Your task to perform on an android device: all mails in gmail Image 0: 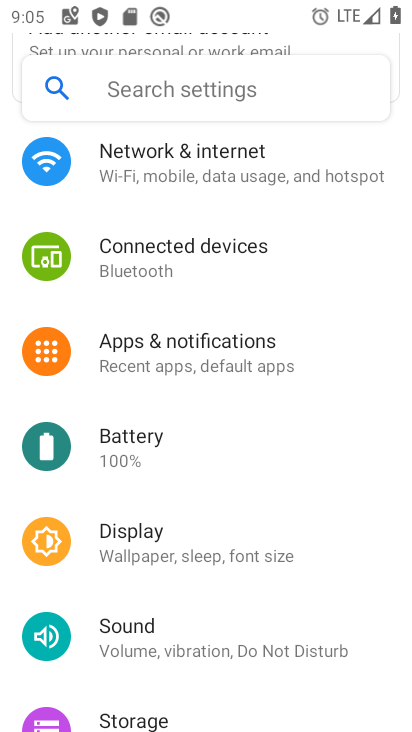
Step 0: press home button
Your task to perform on an android device: all mails in gmail Image 1: 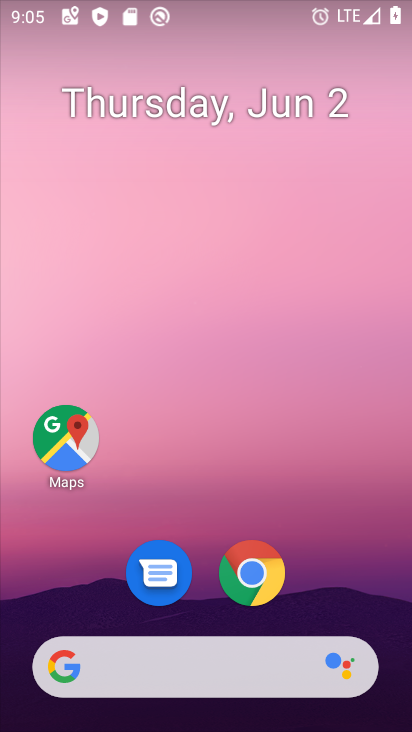
Step 1: drag from (347, 626) to (283, 19)
Your task to perform on an android device: all mails in gmail Image 2: 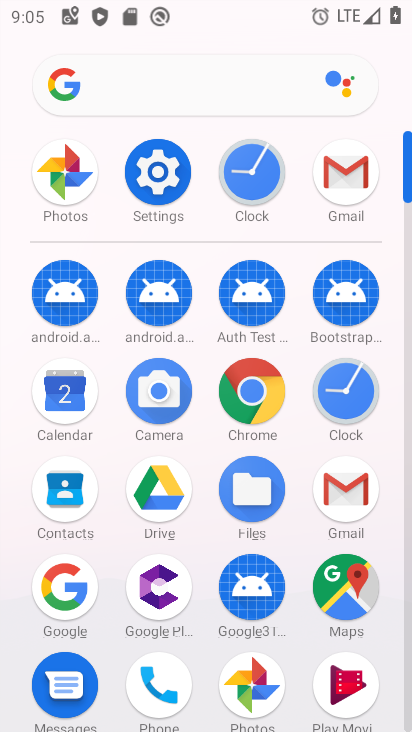
Step 2: click (350, 484)
Your task to perform on an android device: all mails in gmail Image 3: 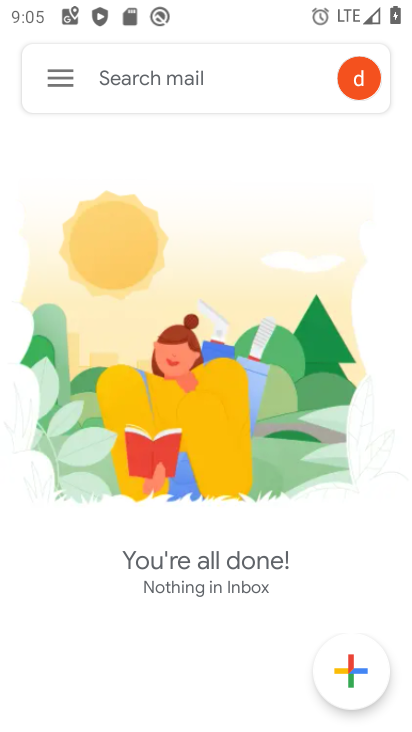
Step 3: click (76, 71)
Your task to perform on an android device: all mails in gmail Image 4: 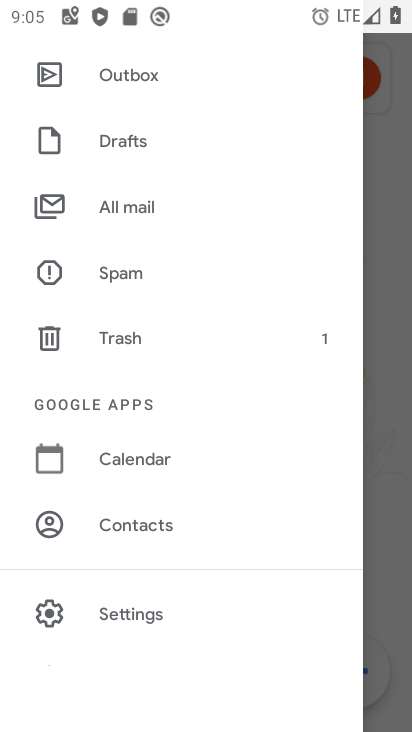
Step 4: click (123, 210)
Your task to perform on an android device: all mails in gmail Image 5: 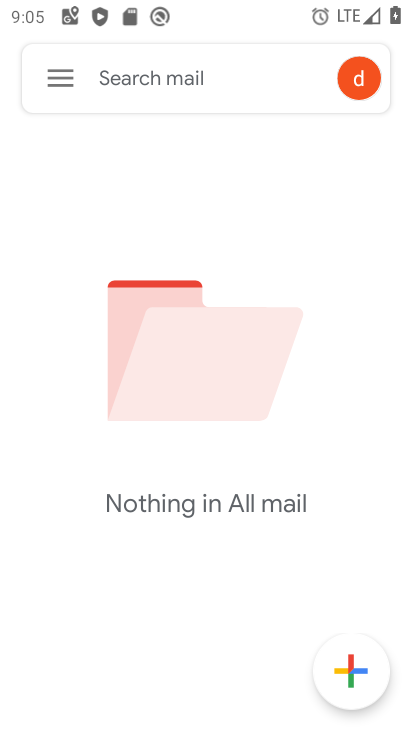
Step 5: task complete